Your task to perform on an android device: Open notification settings Image 0: 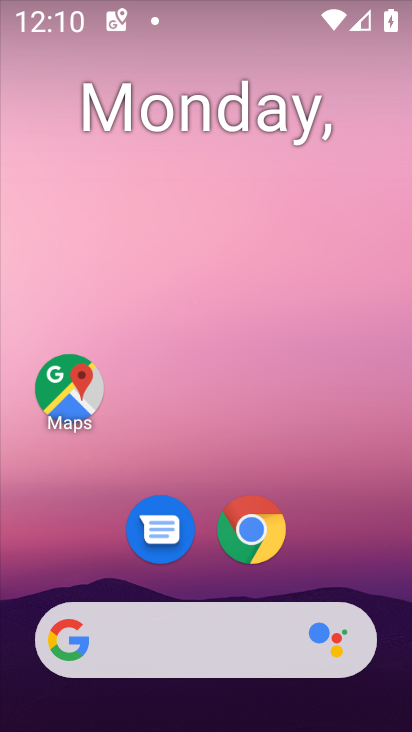
Step 0: press home button
Your task to perform on an android device: Open notification settings Image 1: 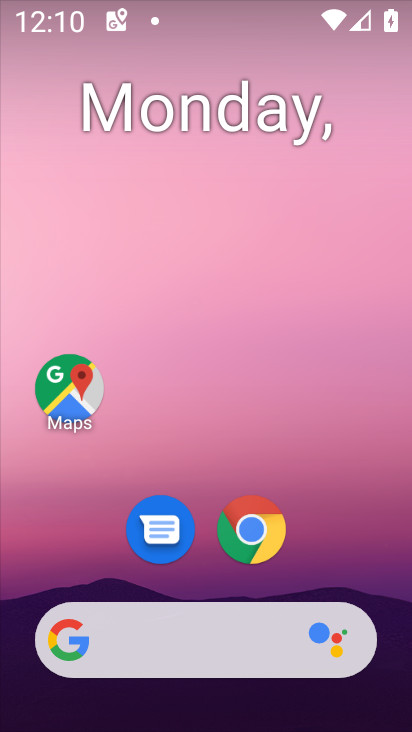
Step 1: drag from (217, 636) to (259, 103)
Your task to perform on an android device: Open notification settings Image 2: 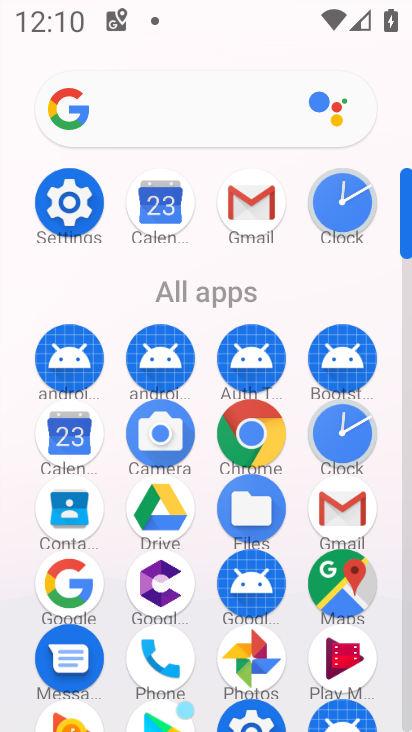
Step 2: click (69, 207)
Your task to perform on an android device: Open notification settings Image 3: 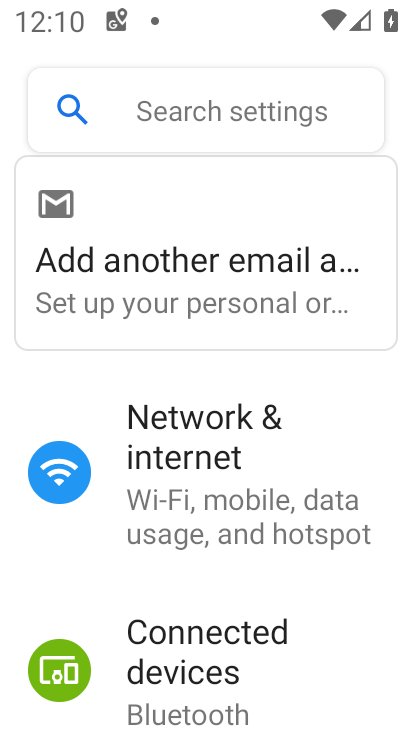
Step 3: drag from (150, 629) to (151, 206)
Your task to perform on an android device: Open notification settings Image 4: 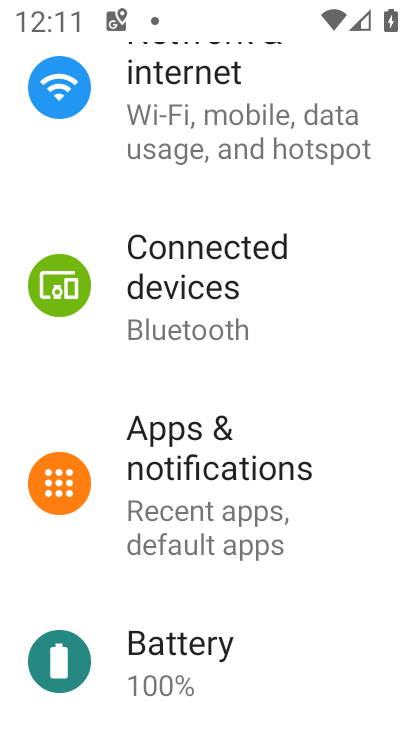
Step 4: click (184, 462)
Your task to perform on an android device: Open notification settings Image 5: 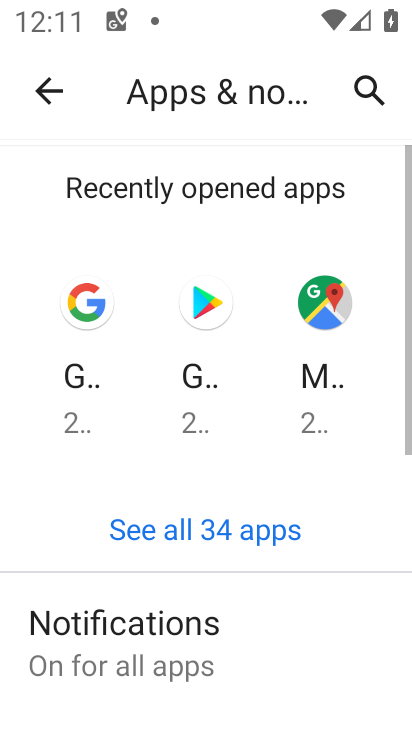
Step 5: task complete